Your task to perform on an android device: Is it going to rain this weekend? Image 0: 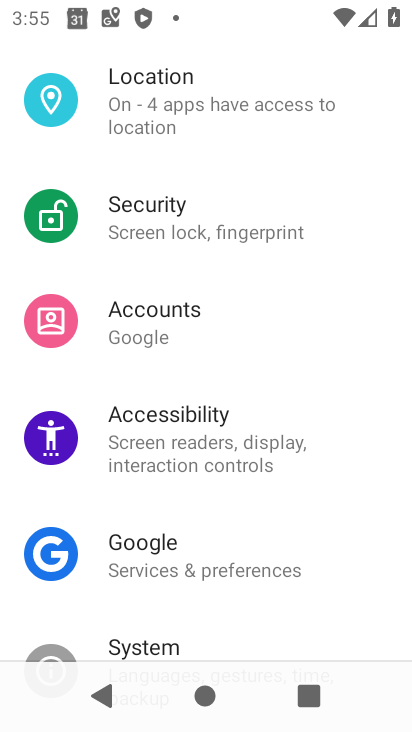
Step 0: press back button
Your task to perform on an android device: Is it going to rain this weekend? Image 1: 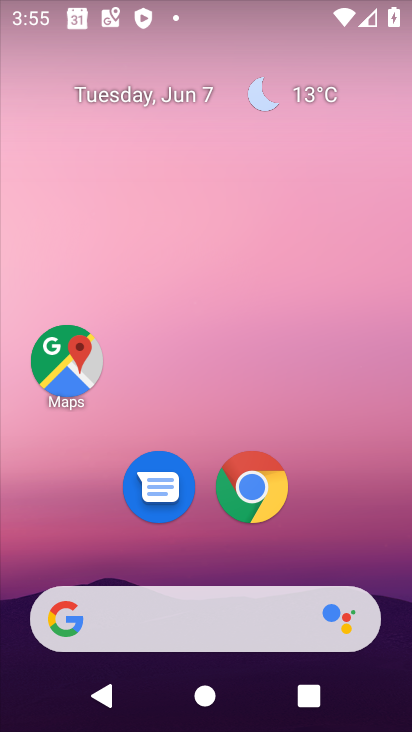
Step 1: click (266, 100)
Your task to perform on an android device: Is it going to rain this weekend? Image 2: 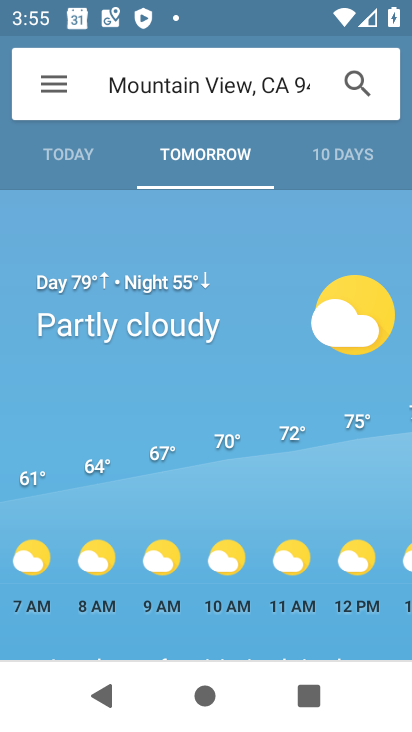
Step 2: click (341, 163)
Your task to perform on an android device: Is it going to rain this weekend? Image 3: 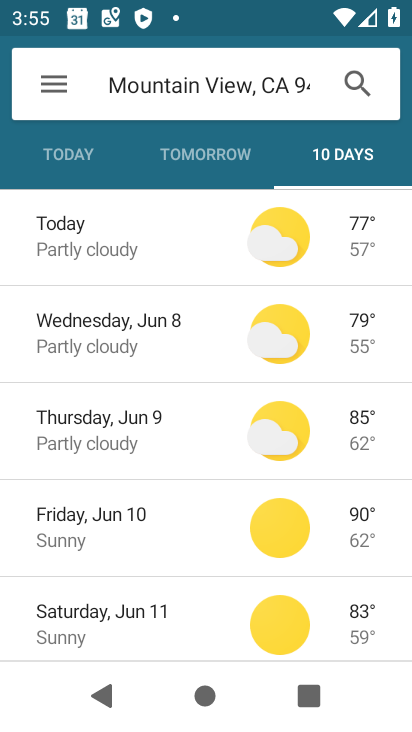
Step 3: task complete